Your task to perform on an android device: Open Google Maps Image 0: 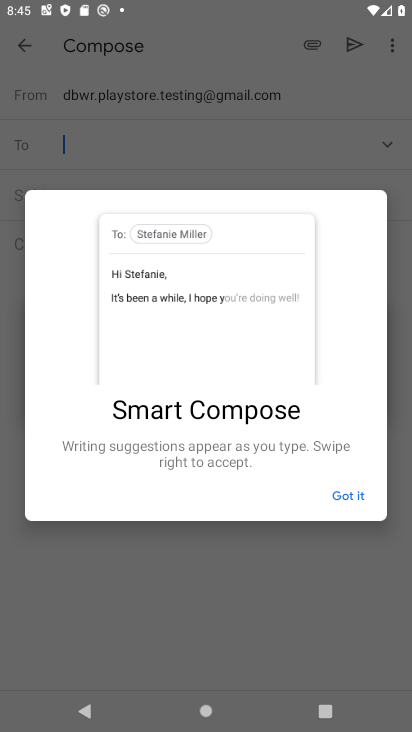
Step 0: press home button
Your task to perform on an android device: Open Google Maps Image 1: 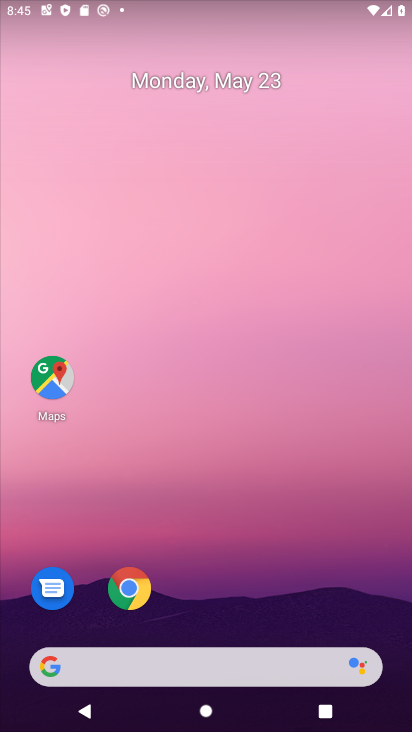
Step 1: click (54, 362)
Your task to perform on an android device: Open Google Maps Image 2: 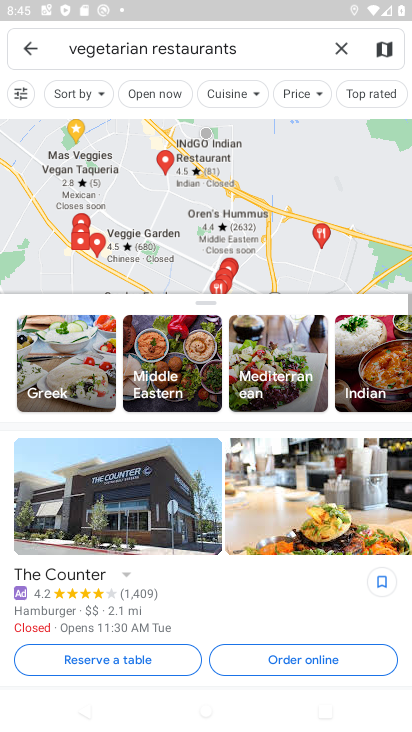
Step 2: click (24, 46)
Your task to perform on an android device: Open Google Maps Image 3: 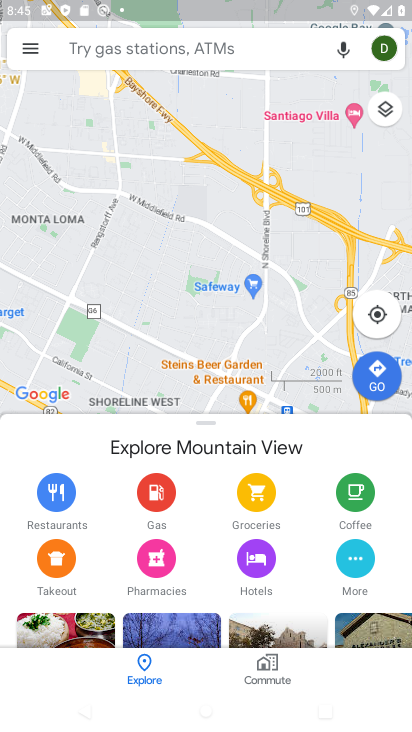
Step 3: task complete